Your task to perform on an android device: Go to CNN.com Image 0: 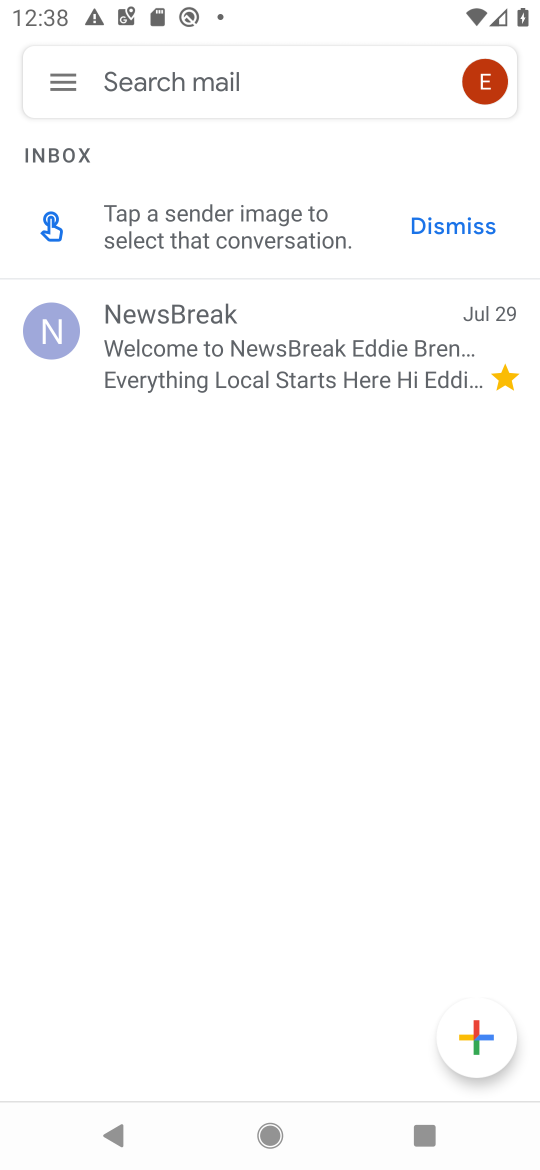
Step 0: press home button
Your task to perform on an android device: Go to CNN.com Image 1: 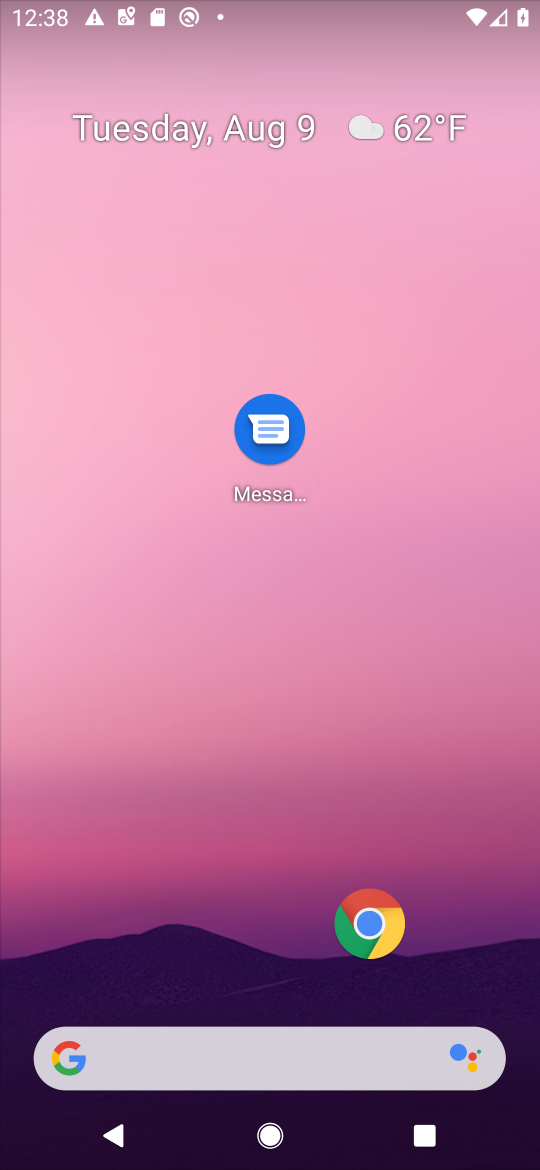
Step 1: click (116, 1063)
Your task to perform on an android device: Go to CNN.com Image 2: 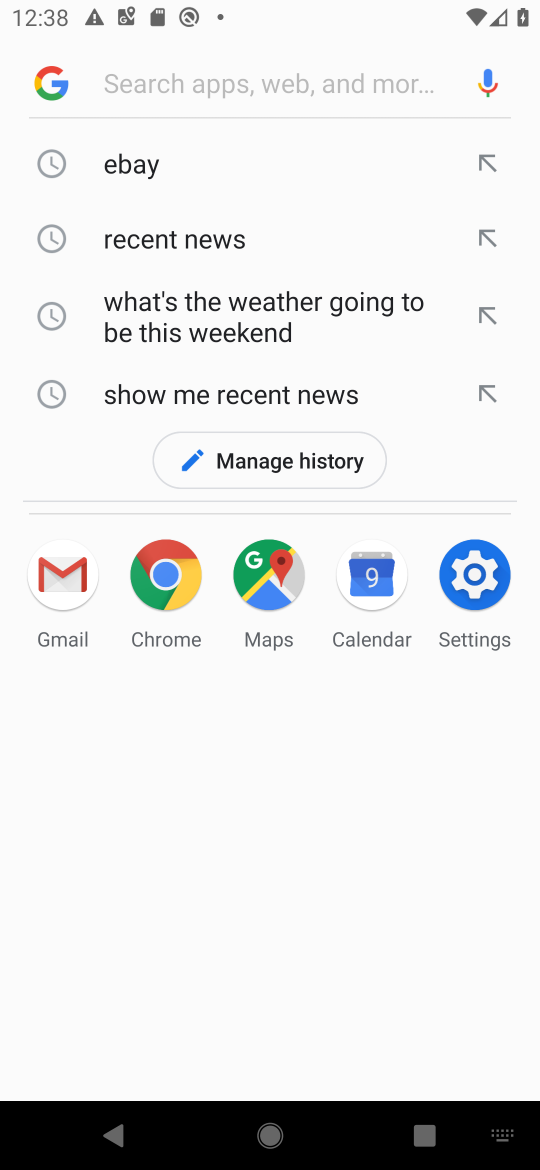
Step 2: type "CNN.com"
Your task to perform on an android device: Go to CNN.com Image 3: 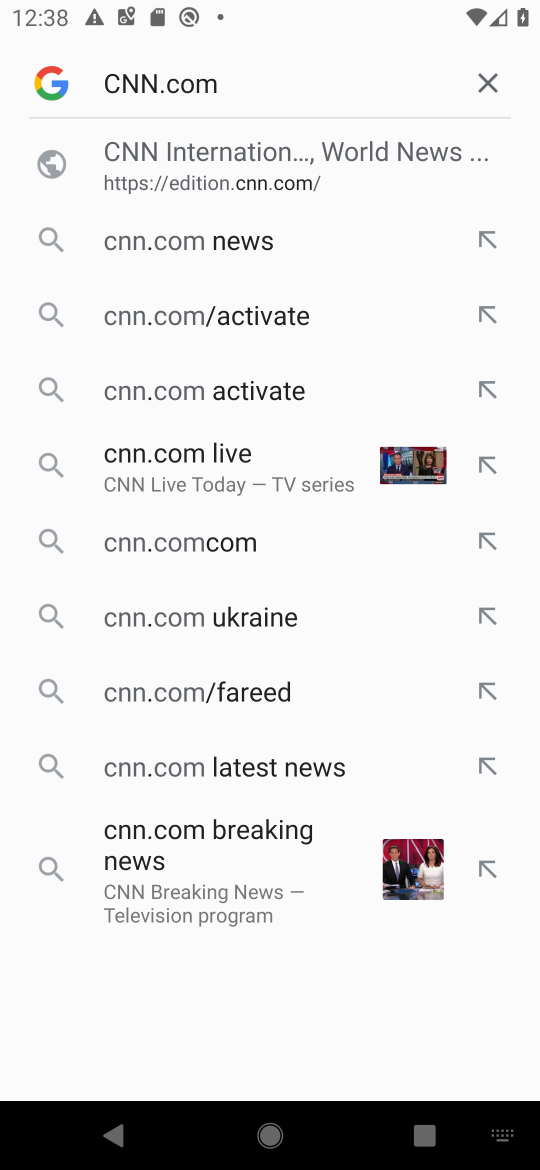
Step 3: click (192, 149)
Your task to perform on an android device: Go to CNN.com Image 4: 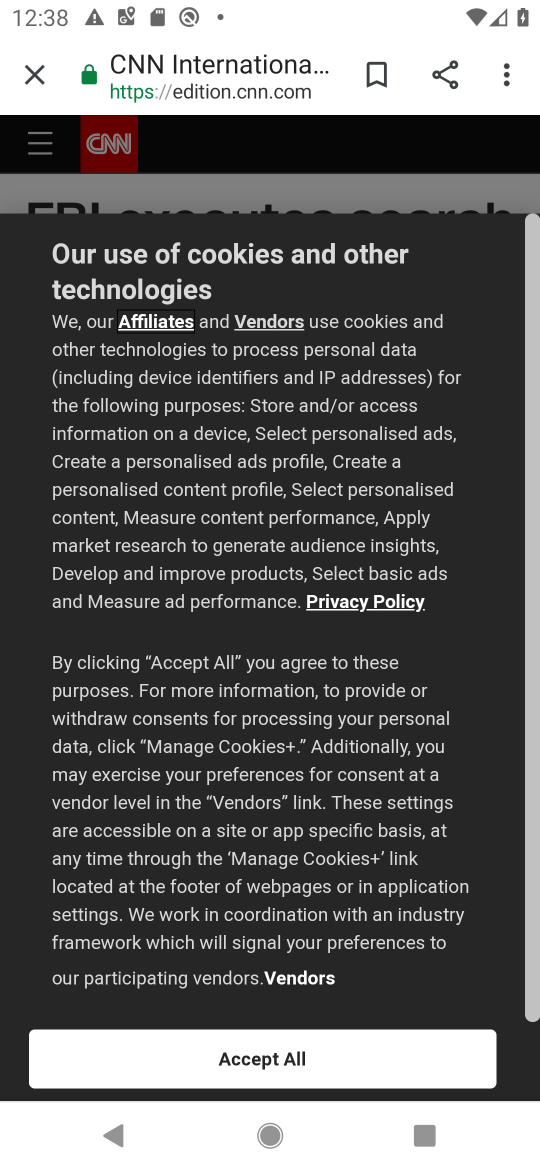
Step 4: task complete